Your task to perform on an android device: create a new album in the google photos Image 0: 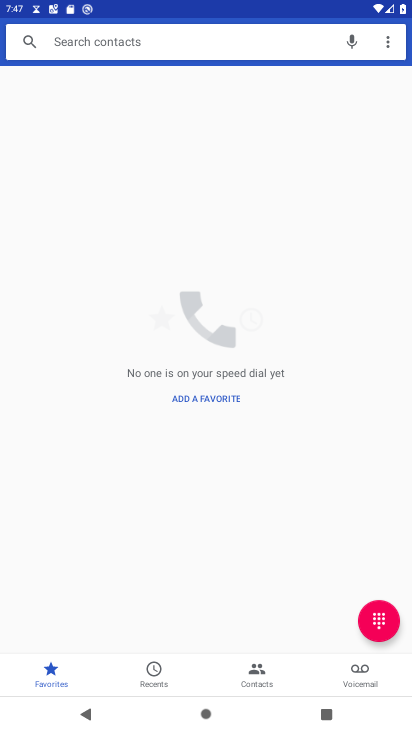
Step 0: press home button
Your task to perform on an android device: create a new album in the google photos Image 1: 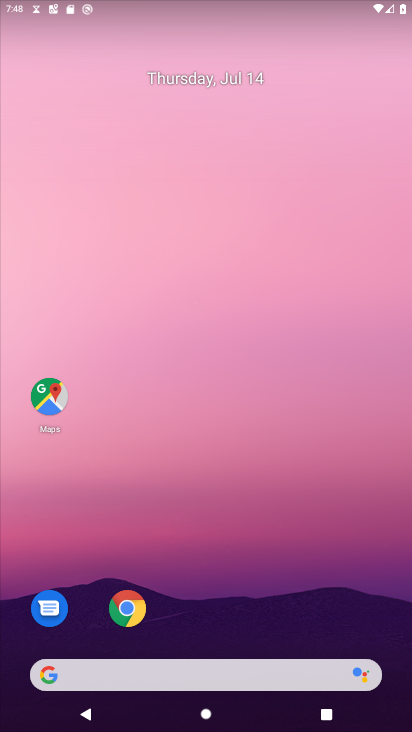
Step 1: drag from (219, 655) to (168, 60)
Your task to perform on an android device: create a new album in the google photos Image 2: 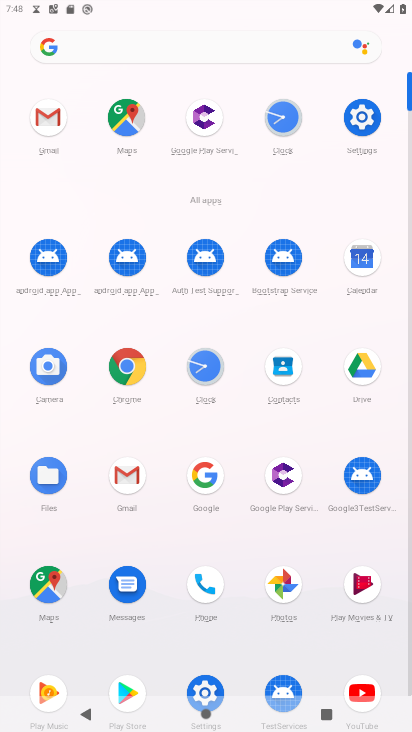
Step 2: click (288, 574)
Your task to perform on an android device: create a new album in the google photos Image 3: 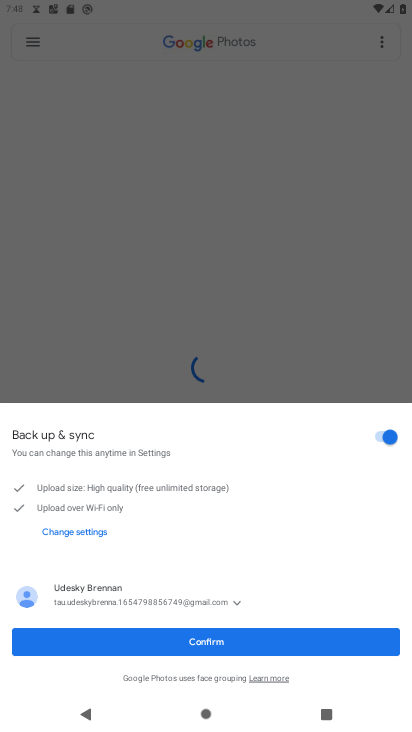
Step 3: click (224, 631)
Your task to perform on an android device: create a new album in the google photos Image 4: 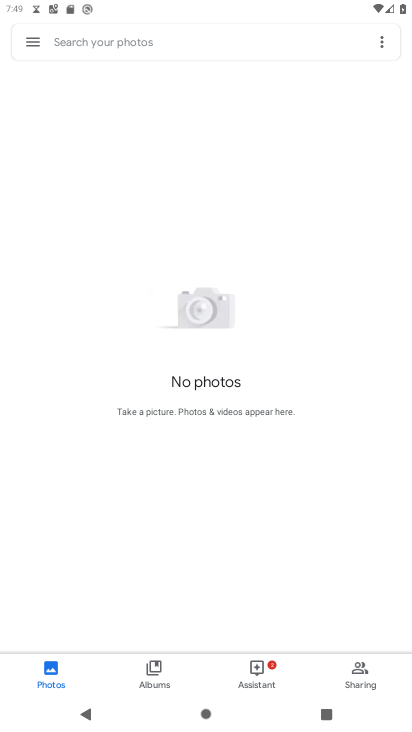
Step 4: task complete